Your task to perform on an android device: Play the last video I watched on Youtube Image 0: 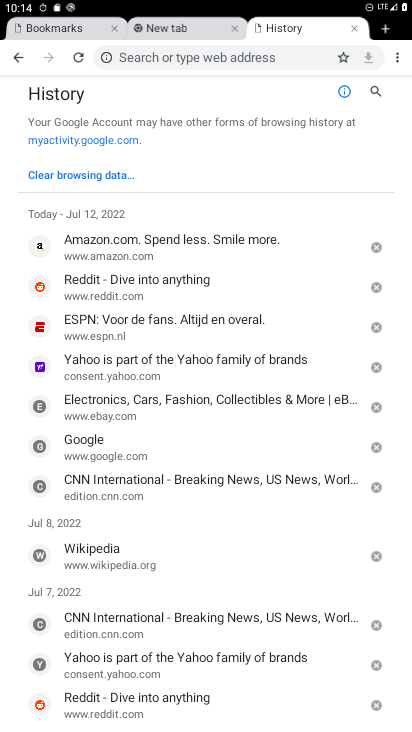
Step 0: press home button
Your task to perform on an android device: Play the last video I watched on Youtube Image 1: 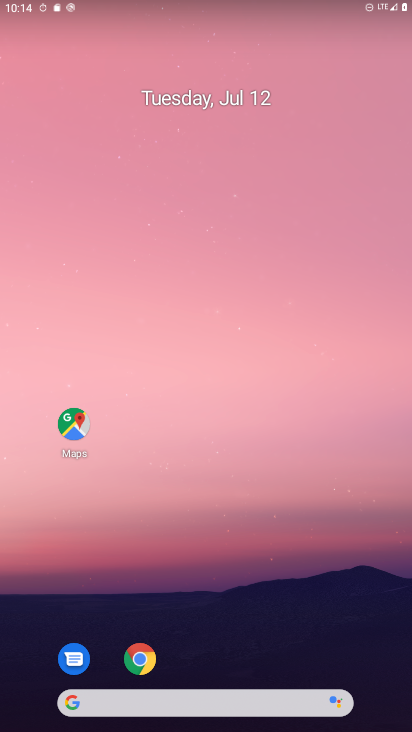
Step 1: drag from (370, 680) to (328, 7)
Your task to perform on an android device: Play the last video I watched on Youtube Image 2: 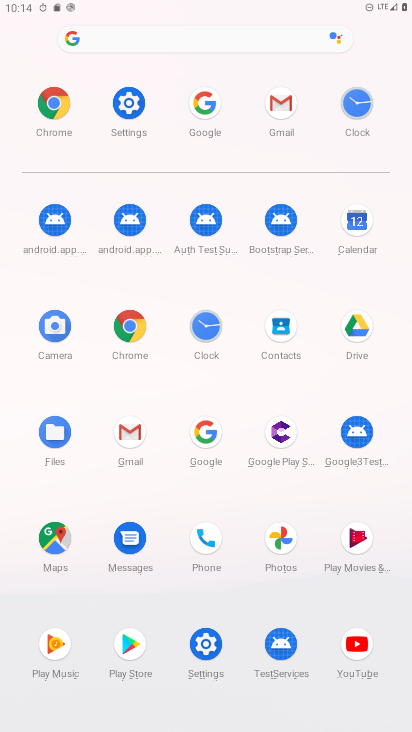
Step 2: click (364, 638)
Your task to perform on an android device: Play the last video I watched on Youtube Image 3: 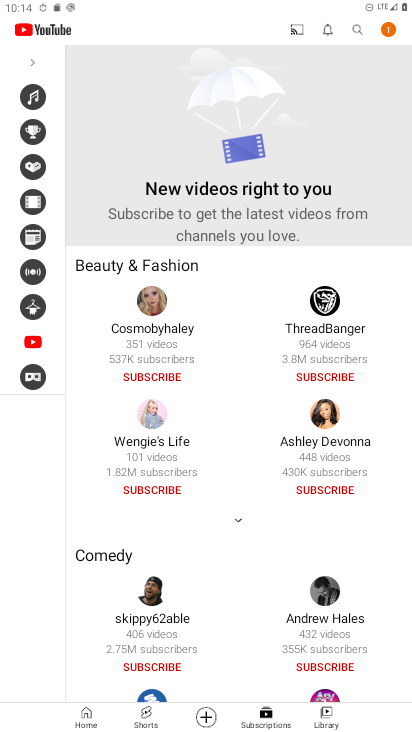
Step 3: click (70, 717)
Your task to perform on an android device: Play the last video I watched on Youtube Image 4: 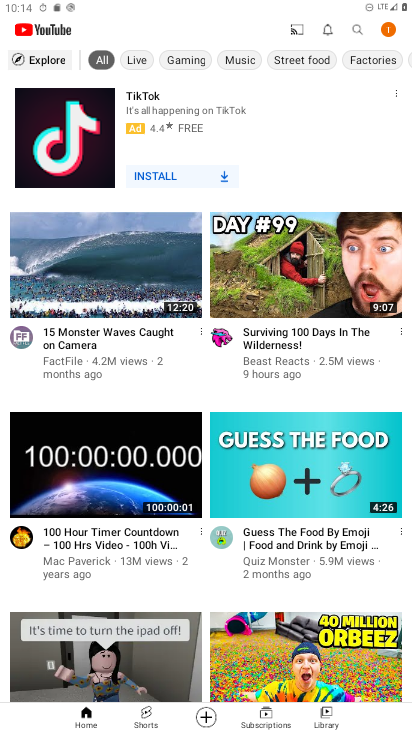
Step 4: task complete